Your task to perform on an android device: Open the Play Movies app and select the watchlist tab. Image 0: 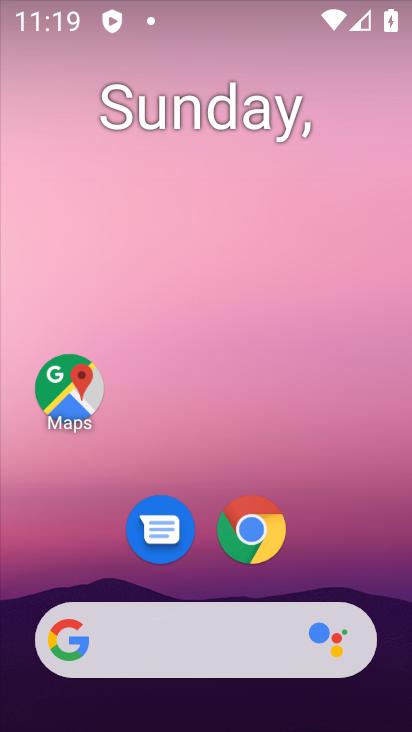
Step 0: drag from (199, 580) to (388, 0)
Your task to perform on an android device: Open the Play Movies app and select the watchlist tab. Image 1: 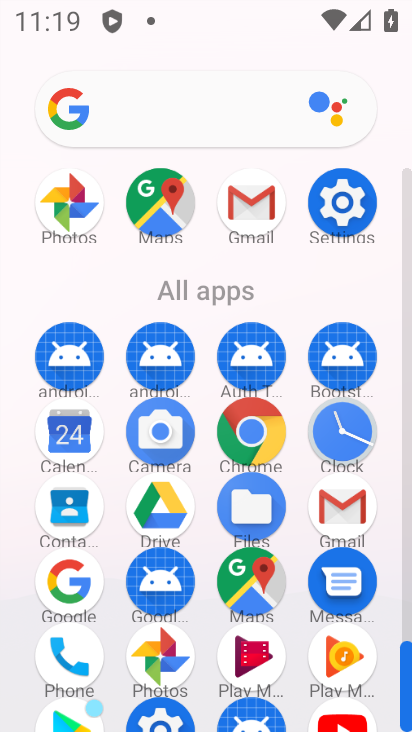
Step 1: click (256, 661)
Your task to perform on an android device: Open the Play Movies app and select the watchlist tab. Image 2: 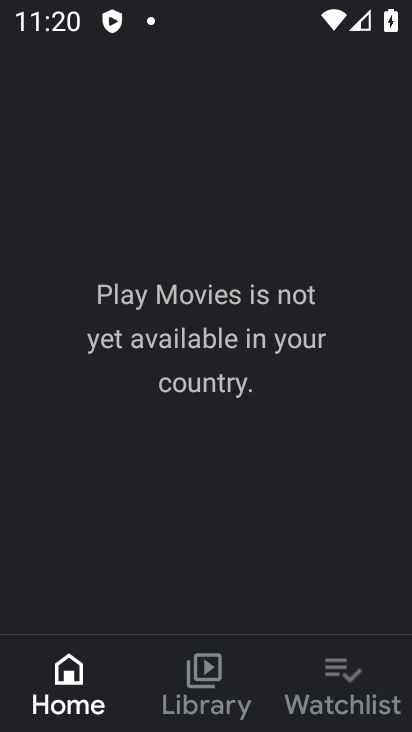
Step 2: click (361, 698)
Your task to perform on an android device: Open the Play Movies app and select the watchlist tab. Image 3: 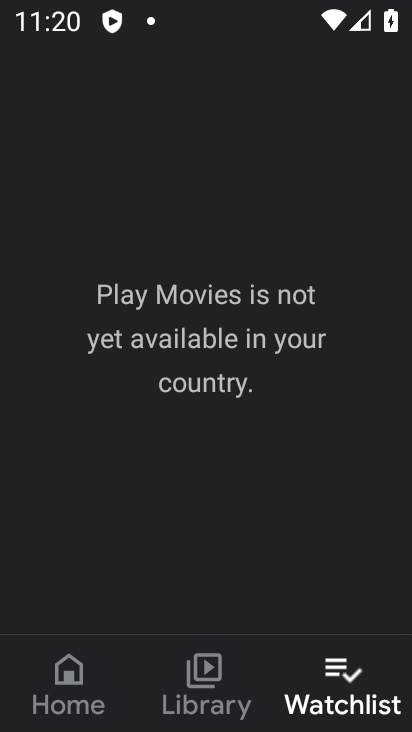
Step 3: task complete